Your task to perform on an android device: change notifications settings Image 0: 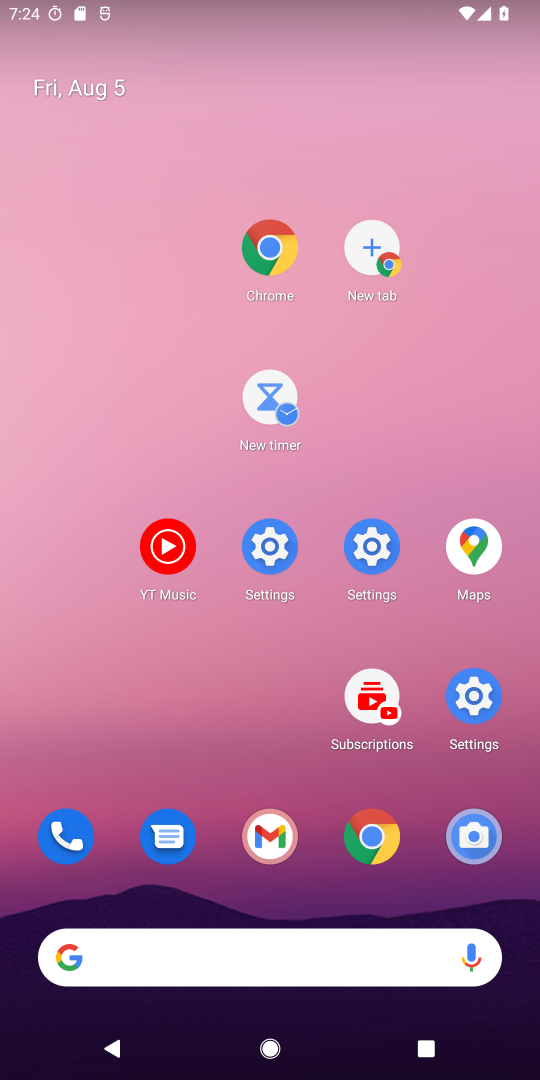
Step 0: click (258, 555)
Your task to perform on an android device: change notifications settings Image 1: 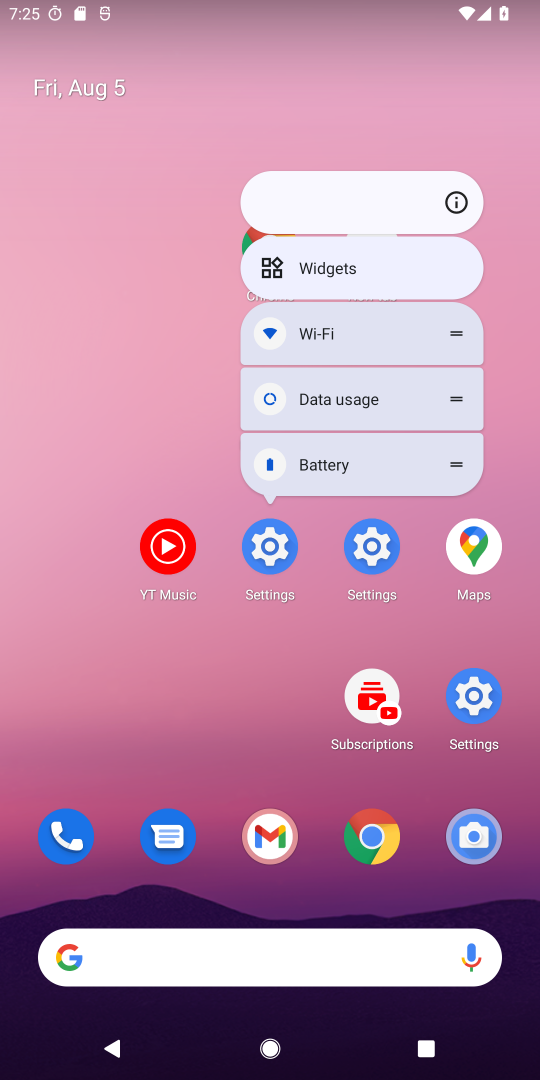
Step 1: click (249, 555)
Your task to perform on an android device: change notifications settings Image 2: 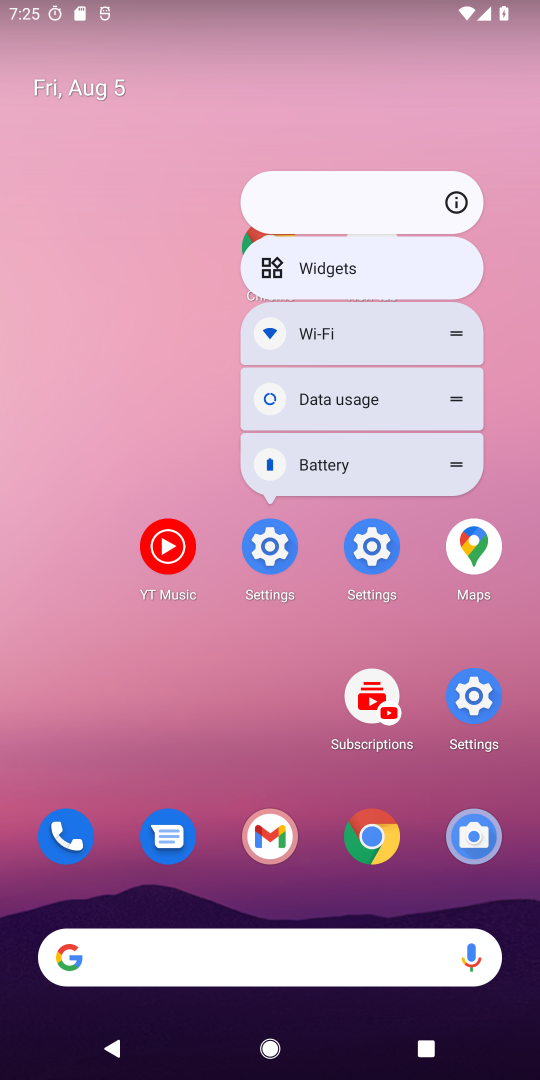
Step 2: click (264, 542)
Your task to perform on an android device: change notifications settings Image 3: 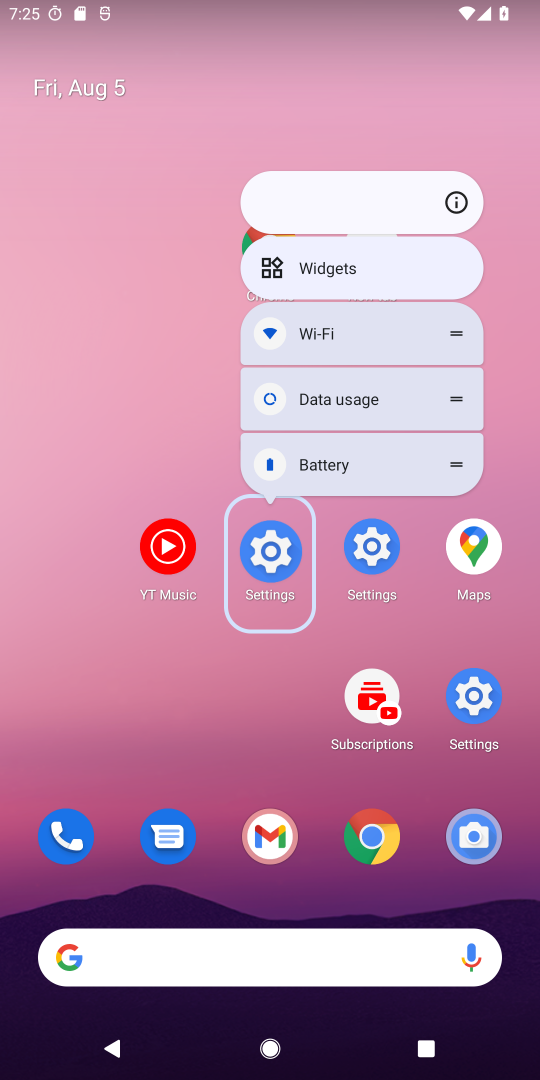
Step 3: click (265, 549)
Your task to perform on an android device: change notifications settings Image 4: 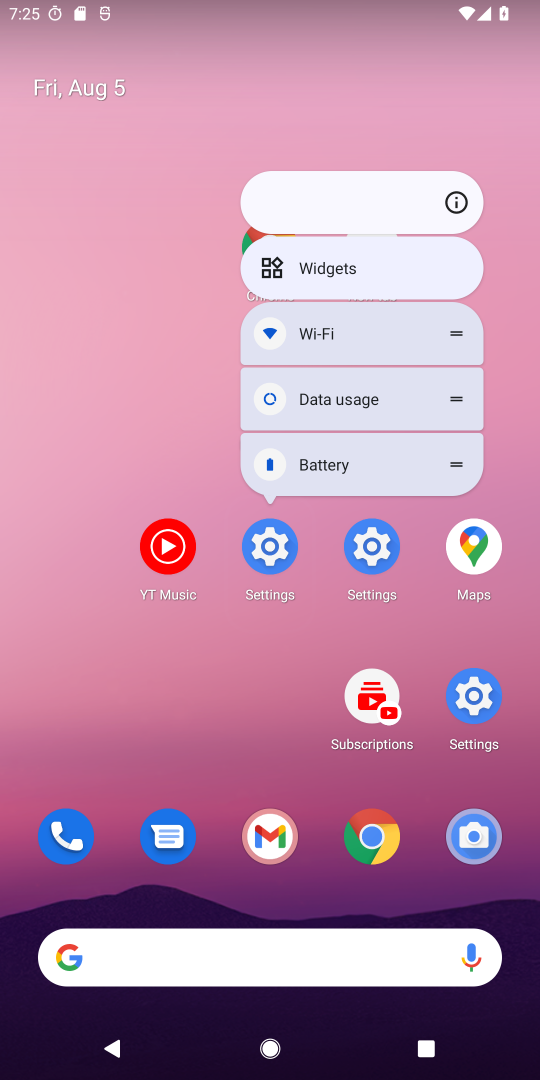
Step 4: click (265, 550)
Your task to perform on an android device: change notifications settings Image 5: 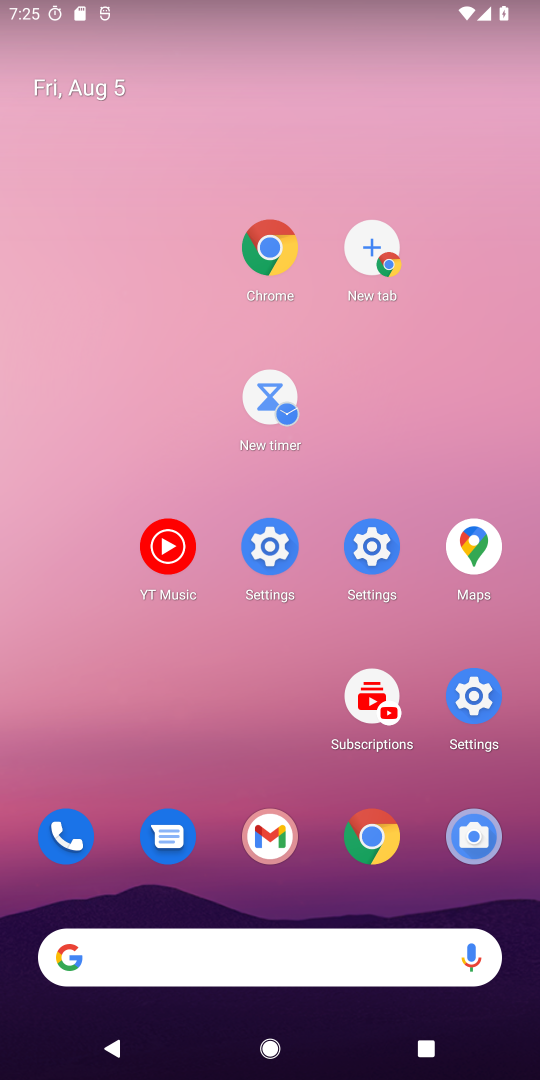
Step 5: click (273, 576)
Your task to perform on an android device: change notifications settings Image 6: 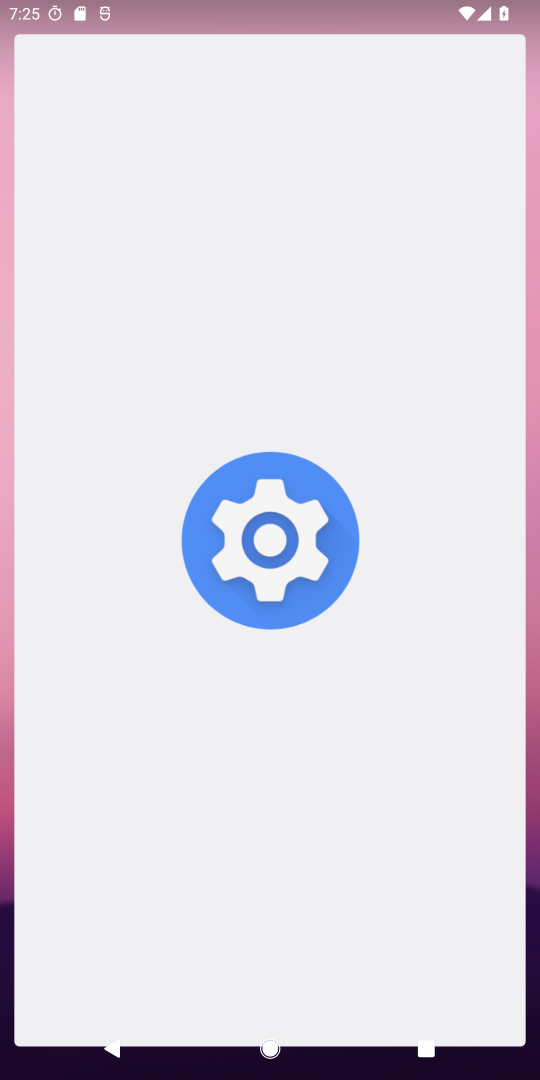
Step 6: click (272, 569)
Your task to perform on an android device: change notifications settings Image 7: 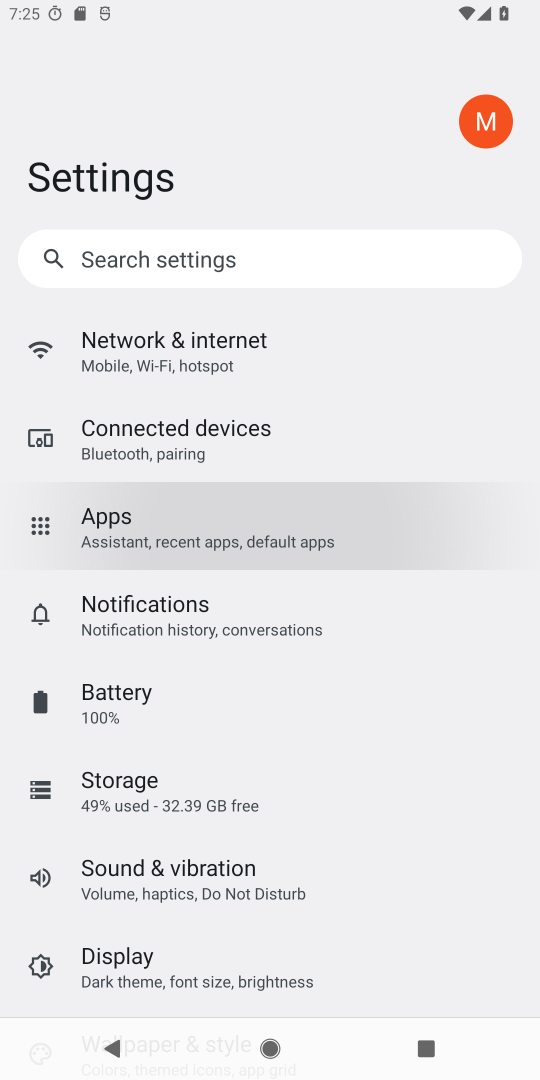
Step 7: click (274, 555)
Your task to perform on an android device: change notifications settings Image 8: 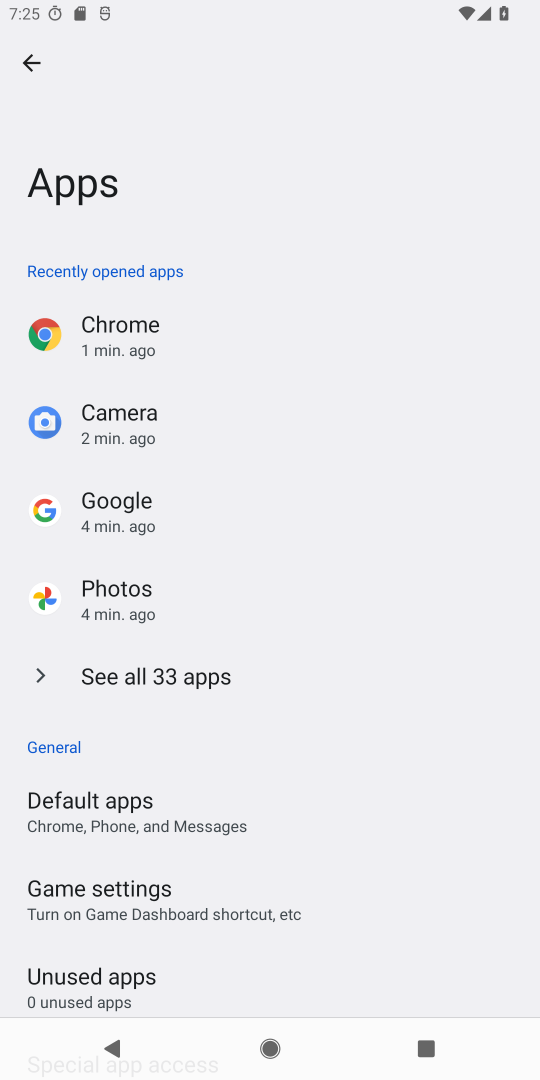
Step 8: drag from (156, 704) to (68, 387)
Your task to perform on an android device: change notifications settings Image 9: 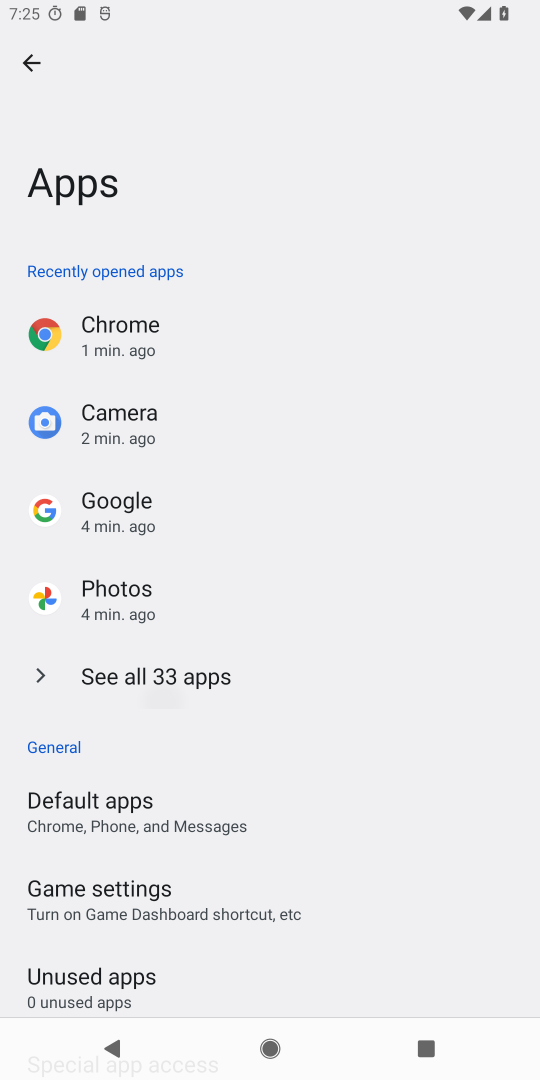
Step 9: drag from (233, 742) to (231, 448)
Your task to perform on an android device: change notifications settings Image 10: 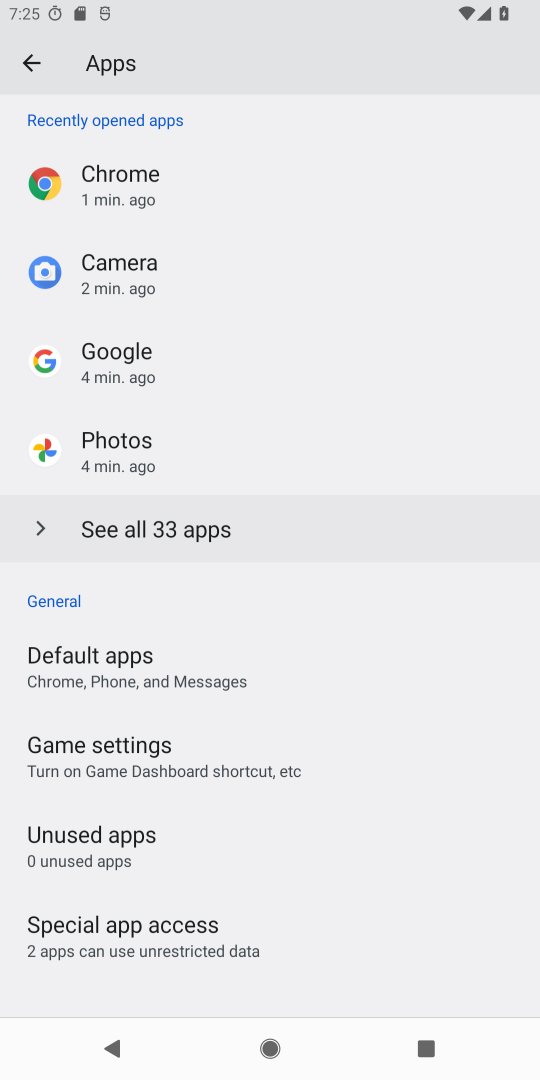
Step 10: drag from (243, 687) to (220, 284)
Your task to perform on an android device: change notifications settings Image 11: 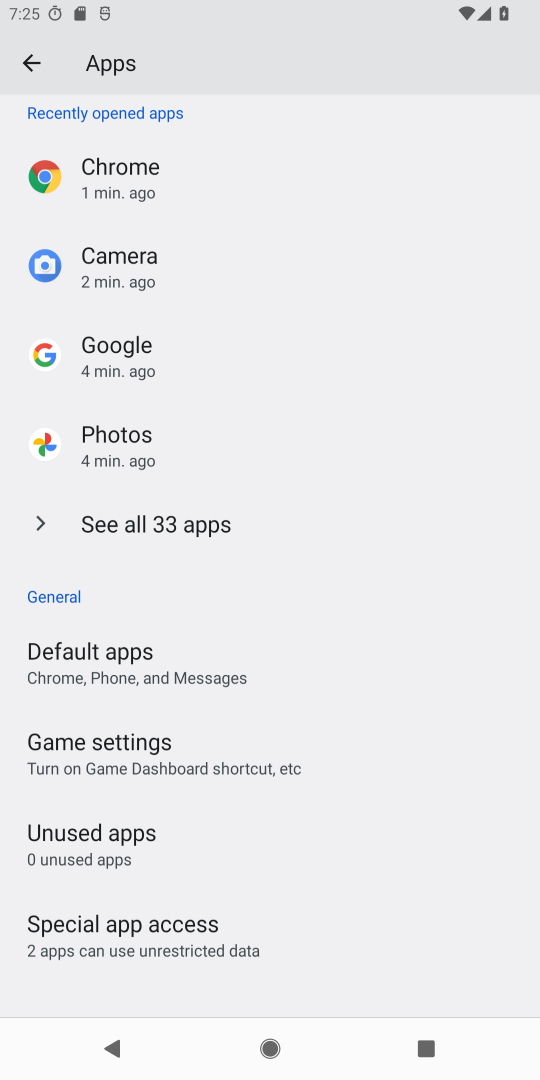
Step 11: drag from (229, 529) to (229, 325)
Your task to perform on an android device: change notifications settings Image 12: 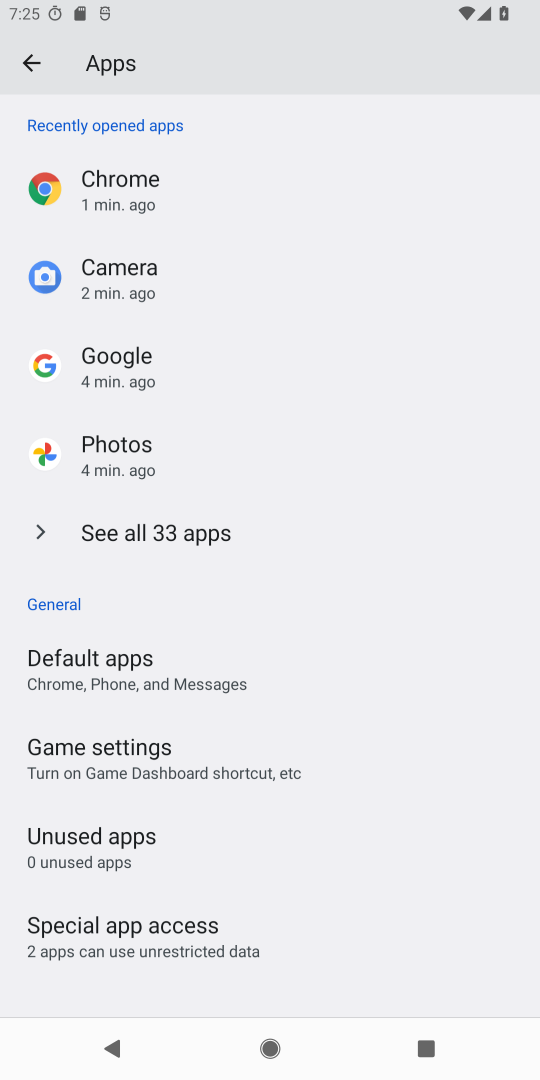
Step 12: drag from (242, 489) to (242, 633)
Your task to perform on an android device: change notifications settings Image 13: 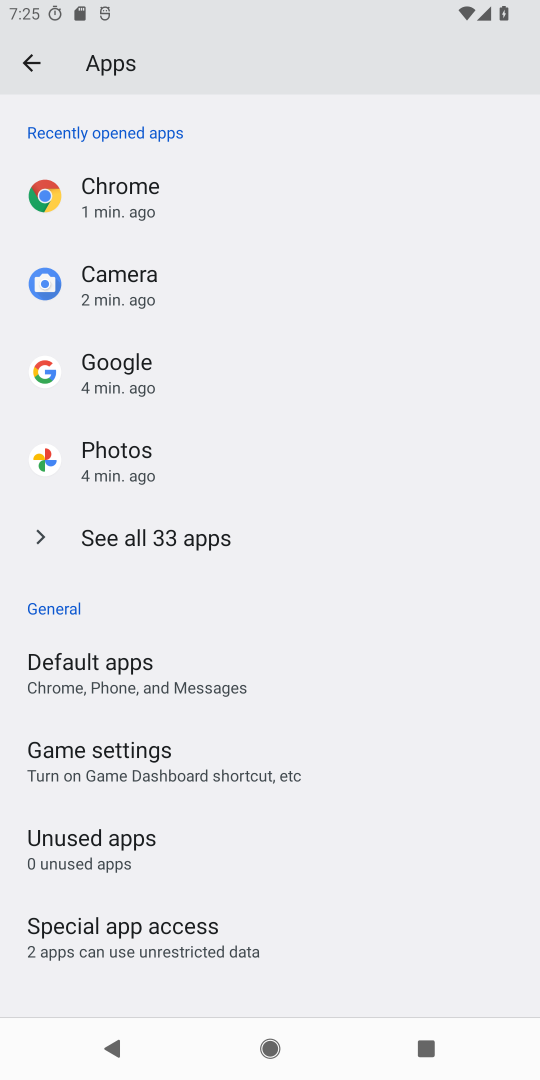
Step 13: drag from (185, 377) to (175, 650)
Your task to perform on an android device: change notifications settings Image 14: 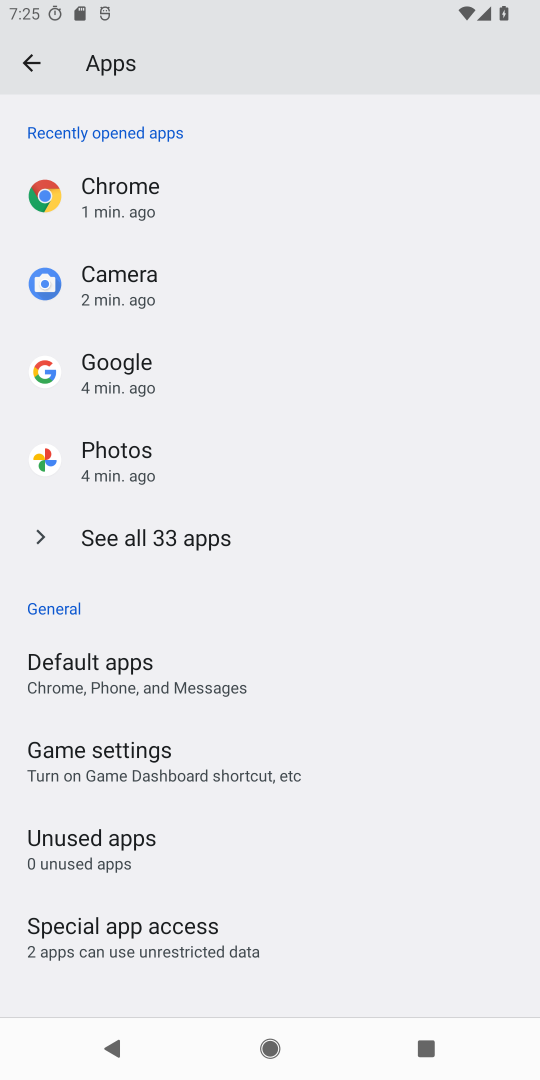
Step 14: click (18, 56)
Your task to perform on an android device: change notifications settings Image 15: 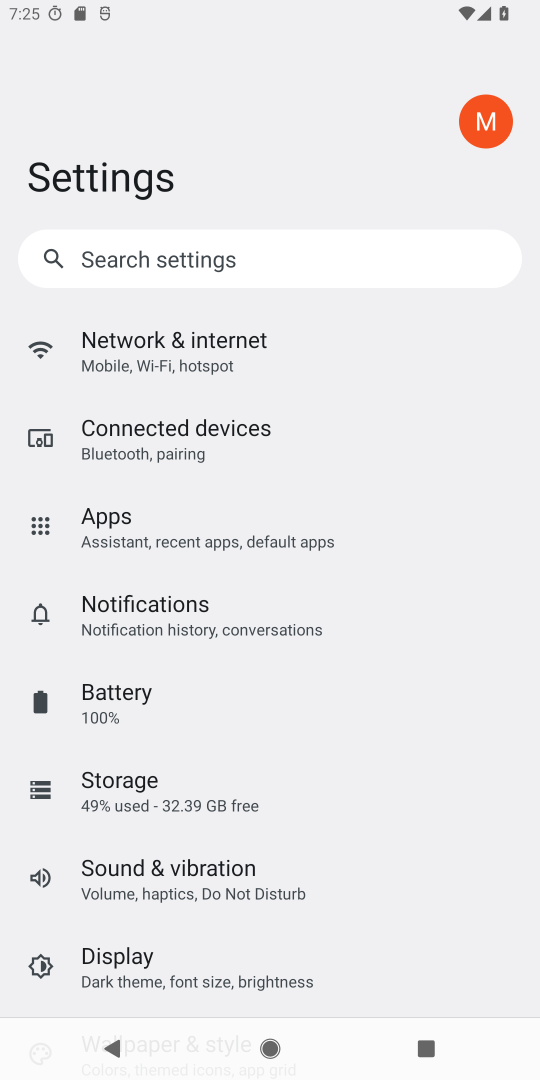
Step 15: click (135, 619)
Your task to perform on an android device: change notifications settings Image 16: 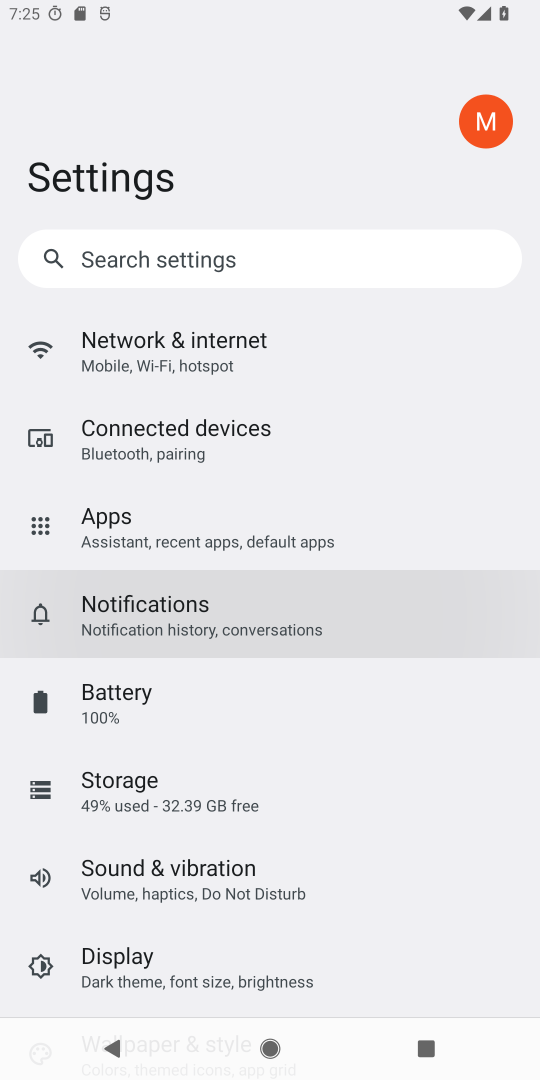
Step 16: click (146, 623)
Your task to perform on an android device: change notifications settings Image 17: 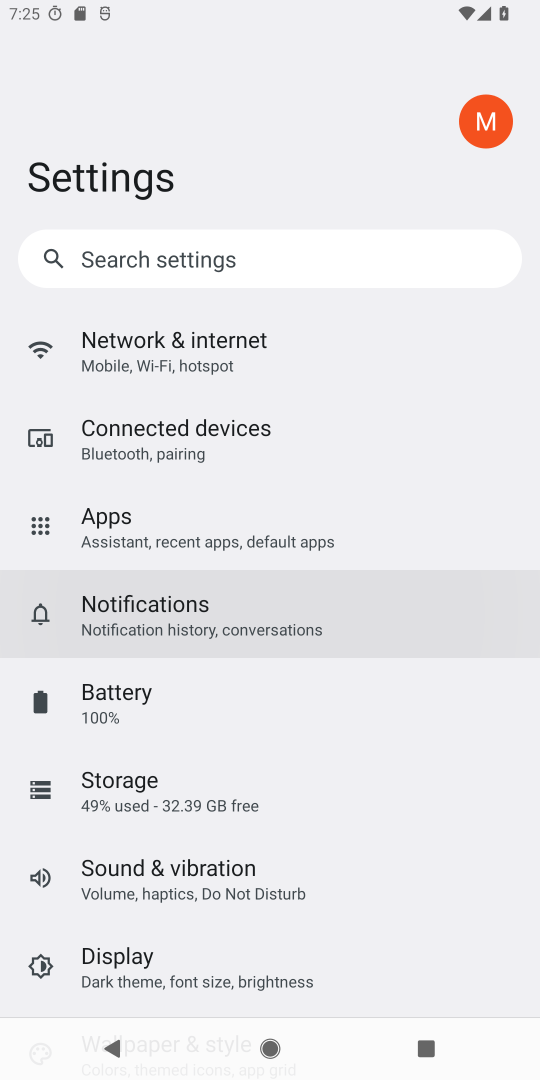
Step 17: click (151, 623)
Your task to perform on an android device: change notifications settings Image 18: 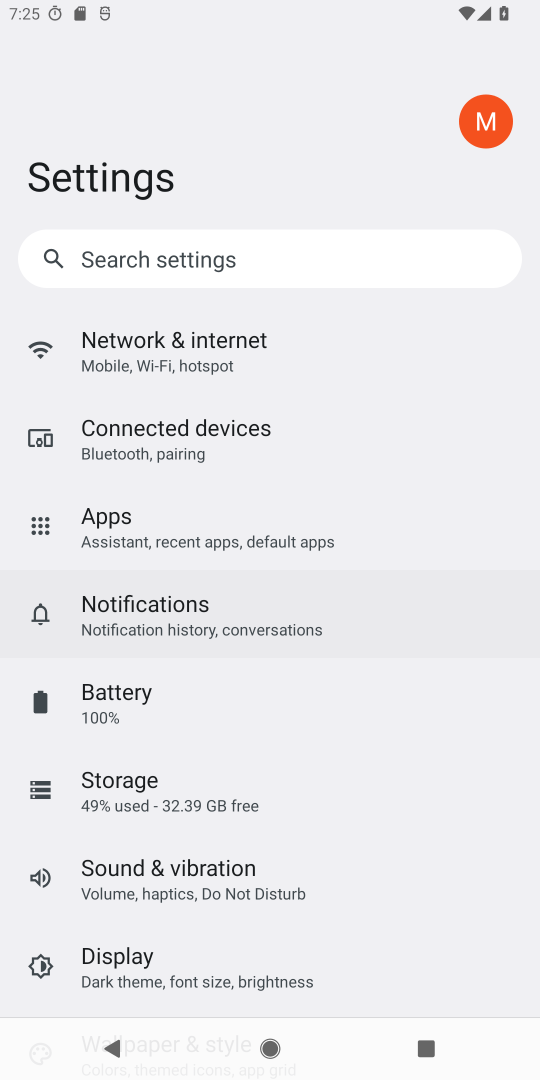
Step 18: click (155, 624)
Your task to perform on an android device: change notifications settings Image 19: 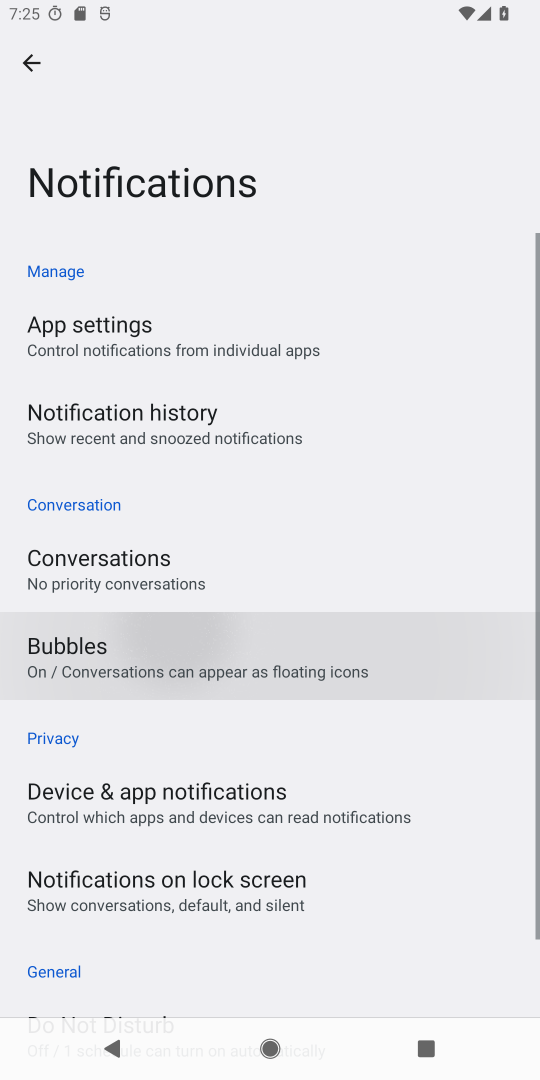
Step 19: click (149, 632)
Your task to perform on an android device: change notifications settings Image 20: 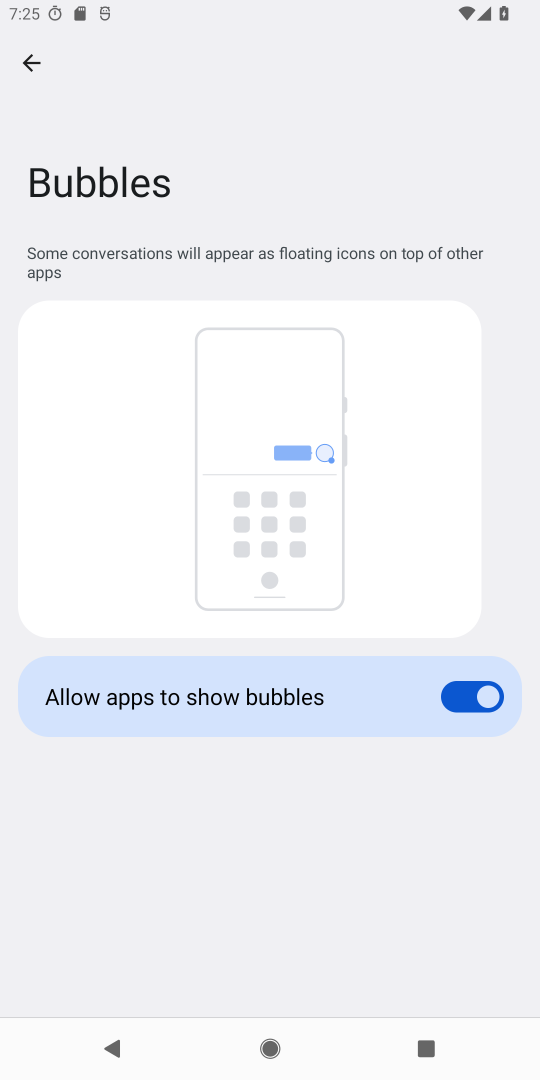
Step 20: click (30, 43)
Your task to perform on an android device: change notifications settings Image 21: 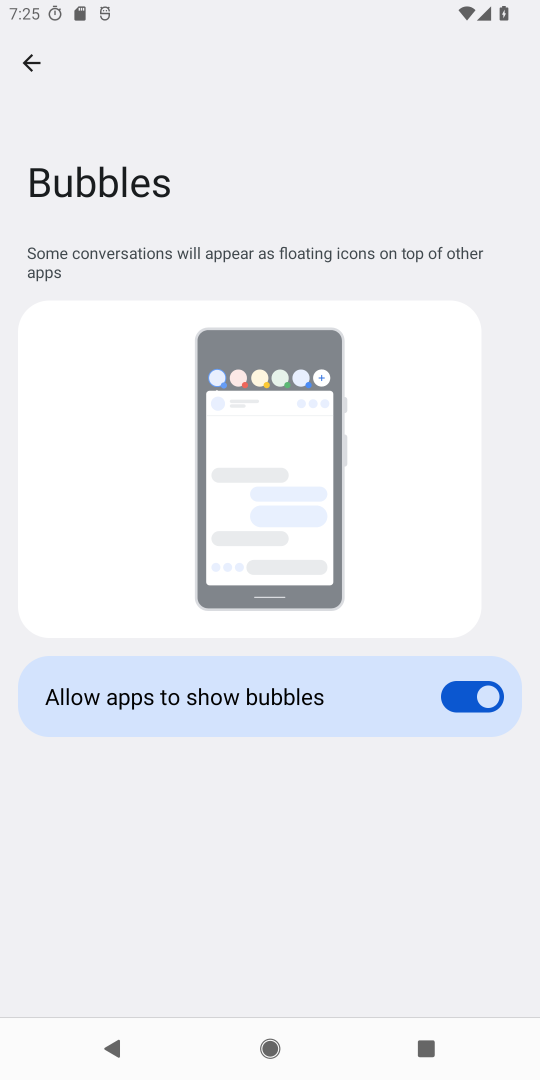
Step 21: click (40, 50)
Your task to perform on an android device: change notifications settings Image 22: 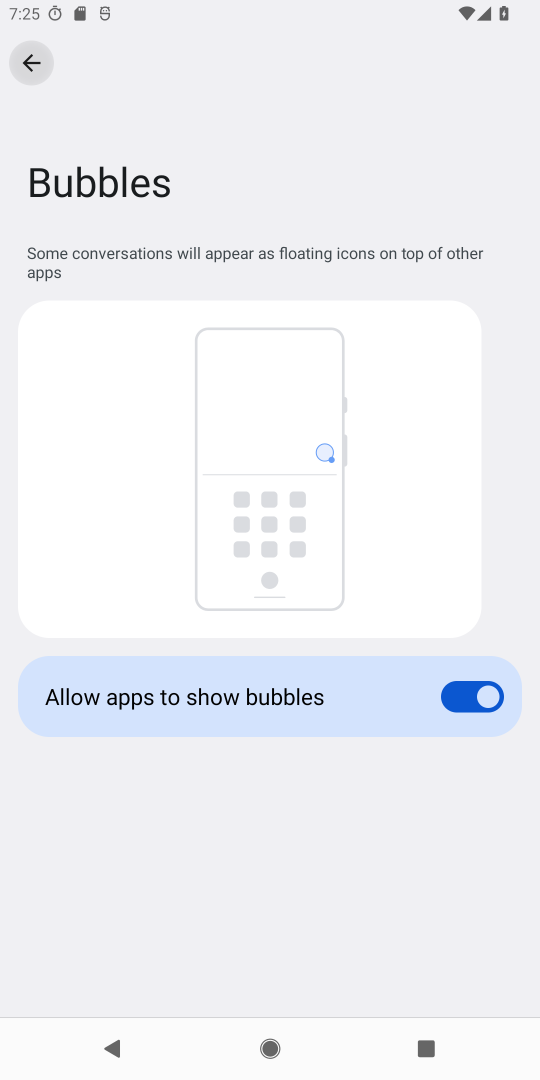
Step 22: click (31, 56)
Your task to perform on an android device: change notifications settings Image 23: 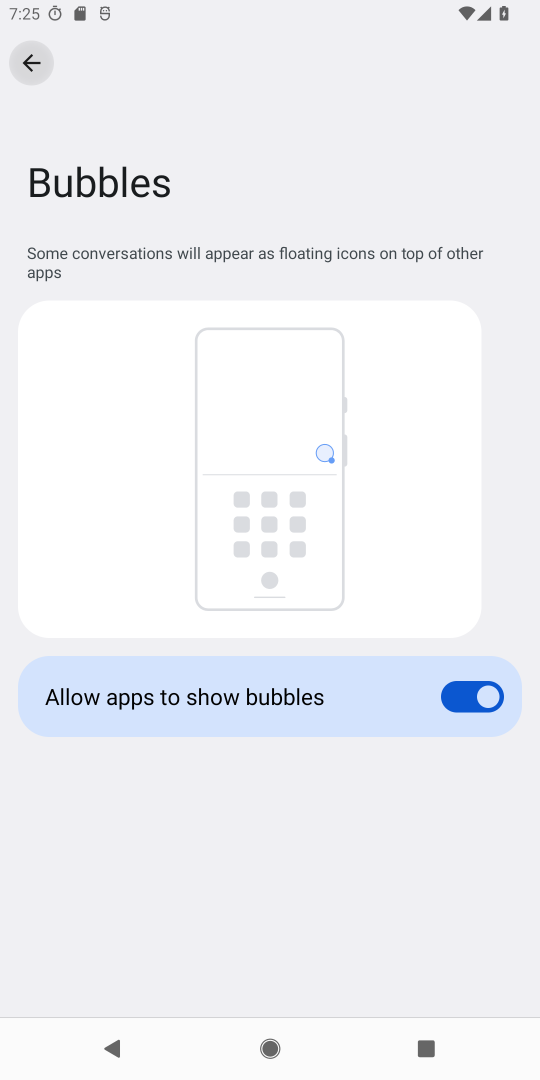
Step 23: click (45, 92)
Your task to perform on an android device: change notifications settings Image 24: 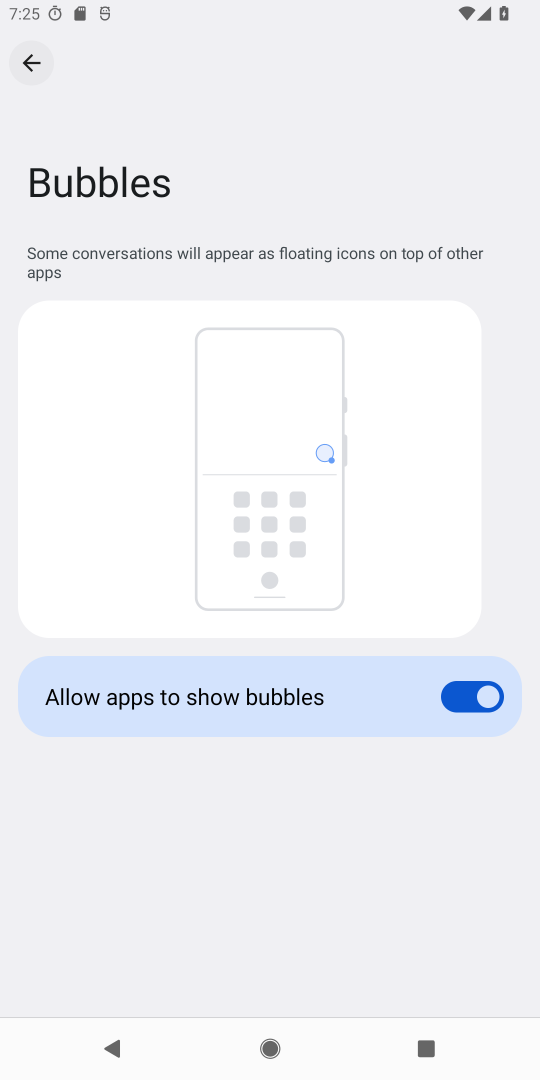
Step 24: click (45, 92)
Your task to perform on an android device: change notifications settings Image 25: 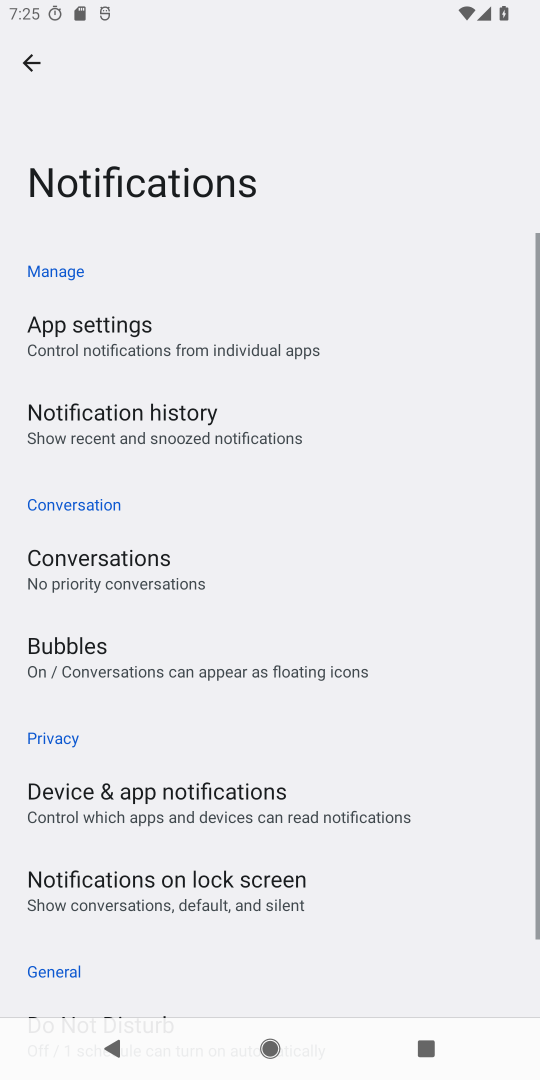
Step 25: click (45, 92)
Your task to perform on an android device: change notifications settings Image 26: 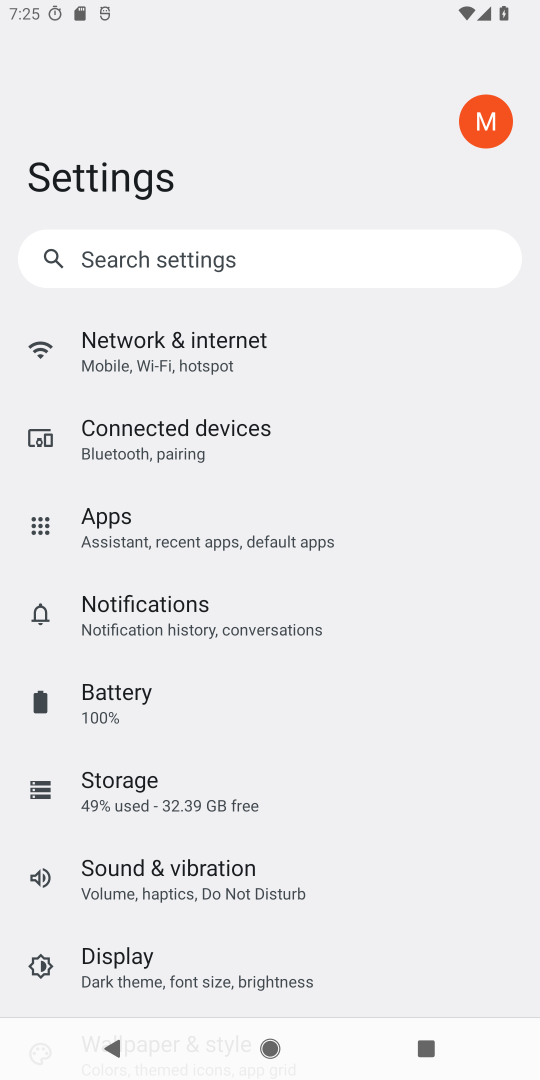
Step 26: click (156, 620)
Your task to perform on an android device: change notifications settings Image 27: 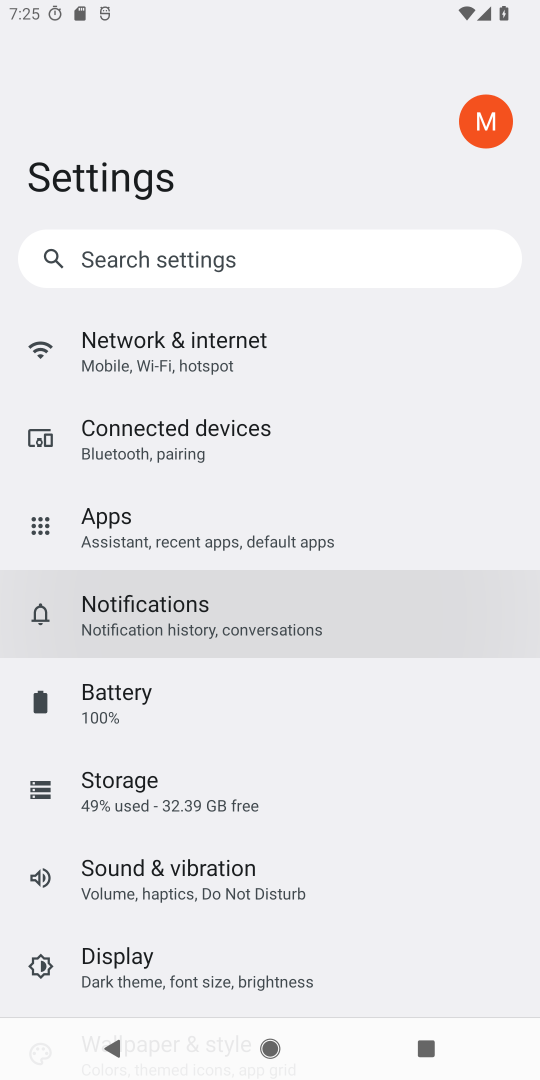
Step 27: click (155, 620)
Your task to perform on an android device: change notifications settings Image 28: 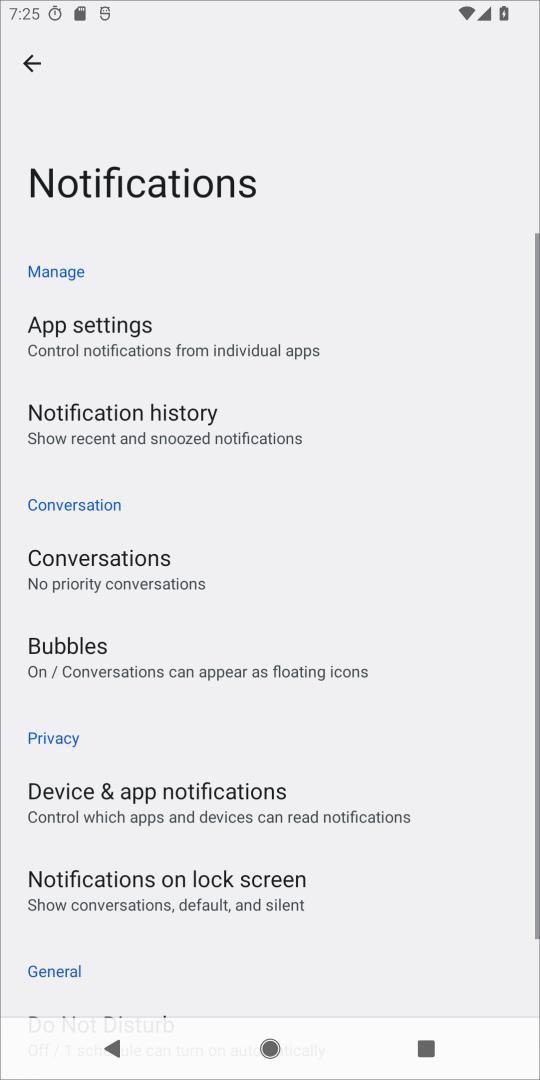
Step 28: click (186, 615)
Your task to perform on an android device: change notifications settings Image 29: 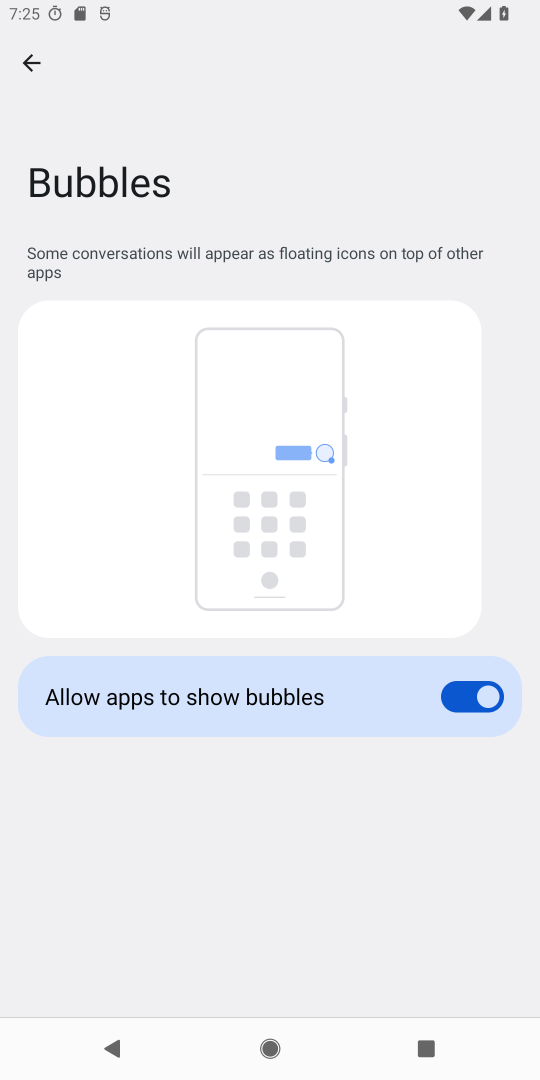
Step 29: task complete